Your task to perform on an android device: toggle priority inbox in the gmail app Image 0: 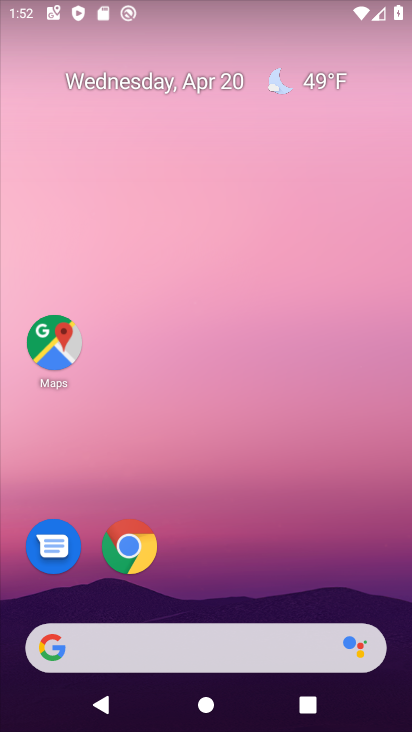
Step 0: drag from (199, 571) to (285, 24)
Your task to perform on an android device: toggle priority inbox in the gmail app Image 1: 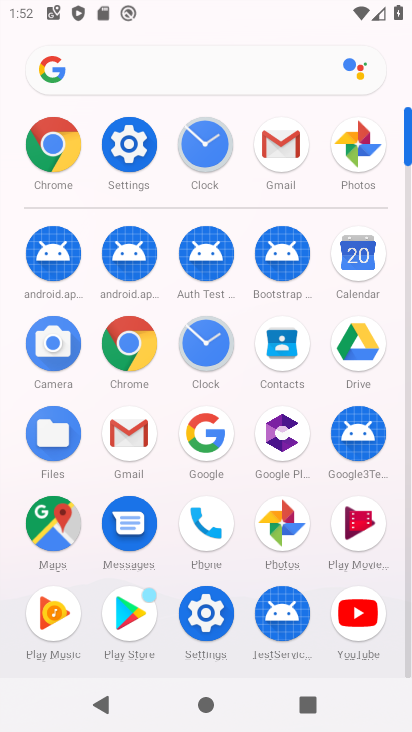
Step 1: click (286, 132)
Your task to perform on an android device: toggle priority inbox in the gmail app Image 2: 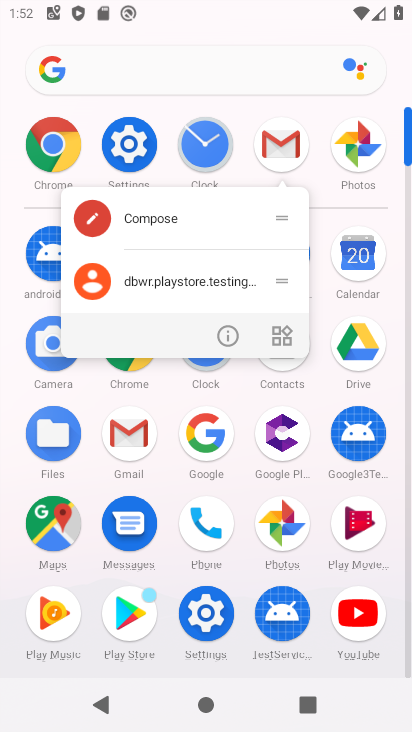
Step 2: click (282, 149)
Your task to perform on an android device: toggle priority inbox in the gmail app Image 3: 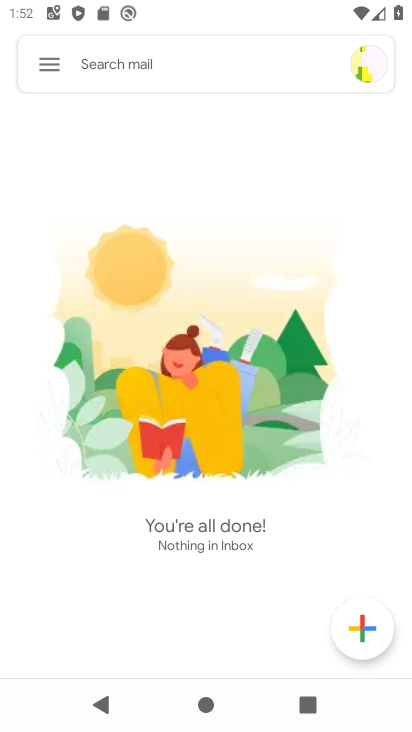
Step 3: click (56, 65)
Your task to perform on an android device: toggle priority inbox in the gmail app Image 4: 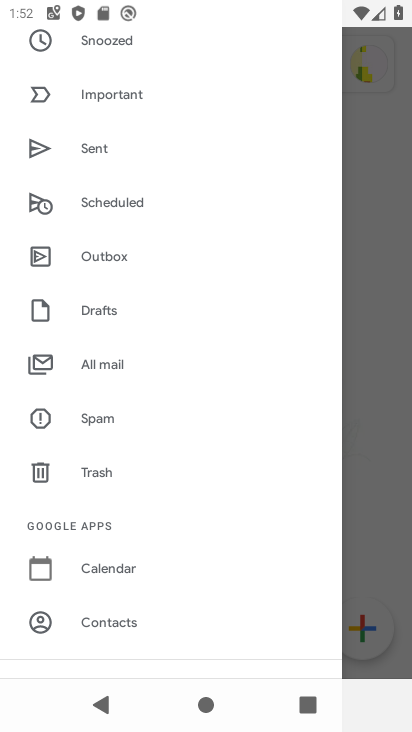
Step 4: drag from (116, 569) to (203, 26)
Your task to perform on an android device: toggle priority inbox in the gmail app Image 5: 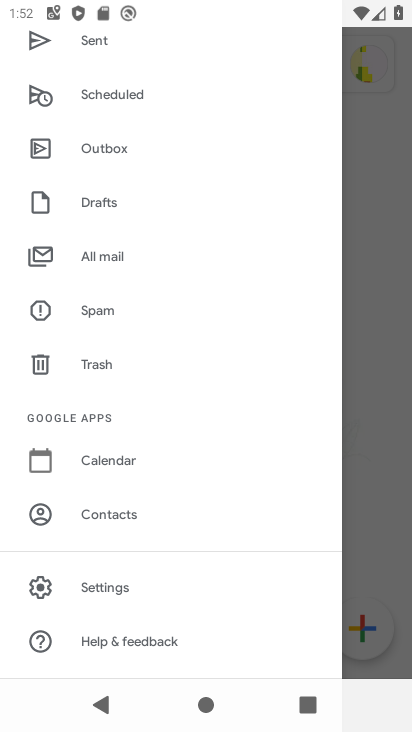
Step 5: click (103, 579)
Your task to perform on an android device: toggle priority inbox in the gmail app Image 6: 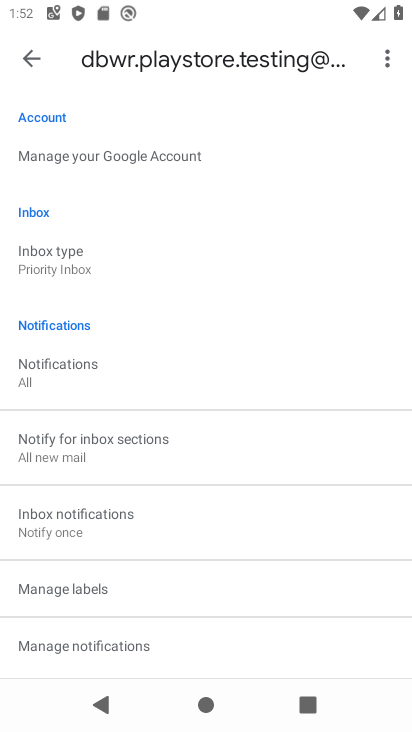
Step 6: click (91, 243)
Your task to perform on an android device: toggle priority inbox in the gmail app Image 7: 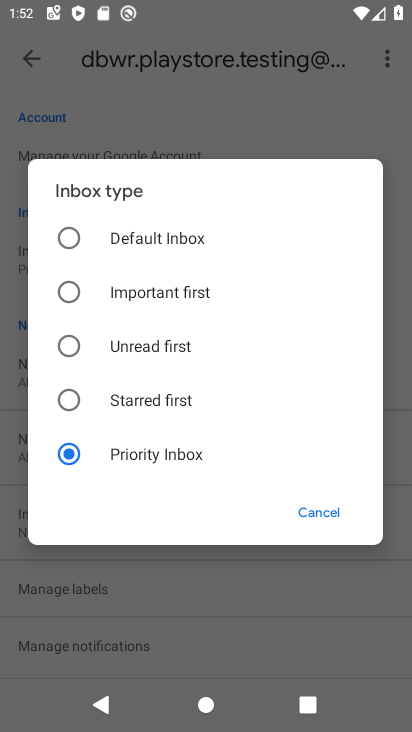
Step 7: click (63, 458)
Your task to perform on an android device: toggle priority inbox in the gmail app Image 8: 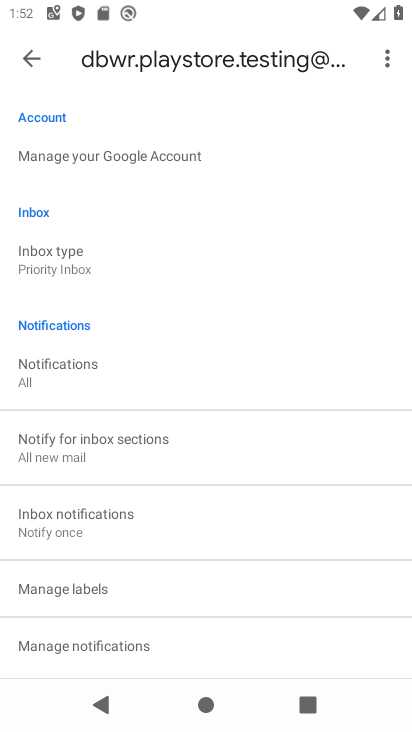
Step 8: task complete